Your task to perform on an android device: toggle show notifications on the lock screen Image 0: 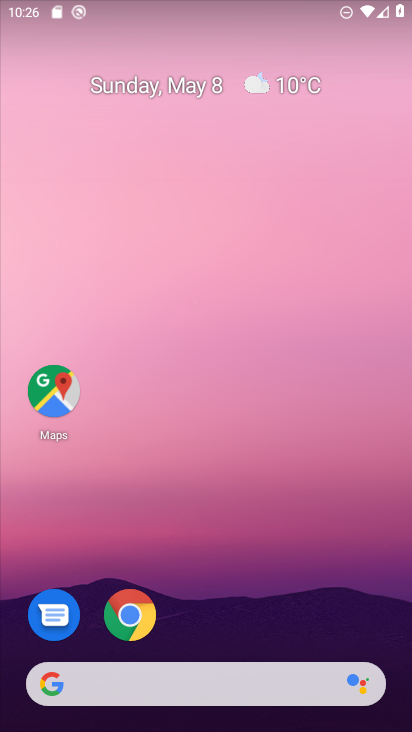
Step 0: drag from (295, 551) to (214, 2)
Your task to perform on an android device: toggle show notifications on the lock screen Image 1: 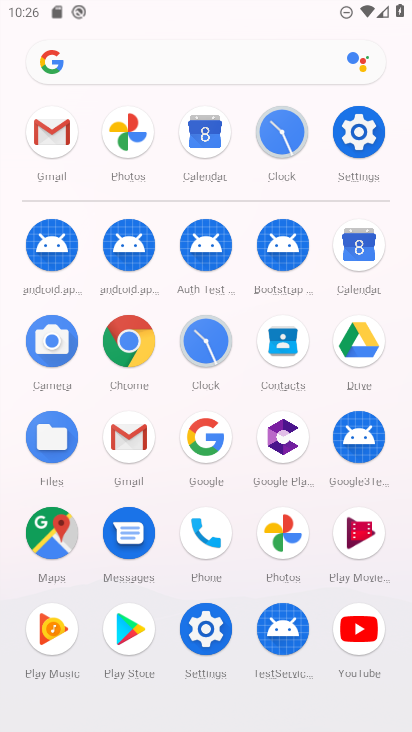
Step 1: click (351, 126)
Your task to perform on an android device: toggle show notifications on the lock screen Image 2: 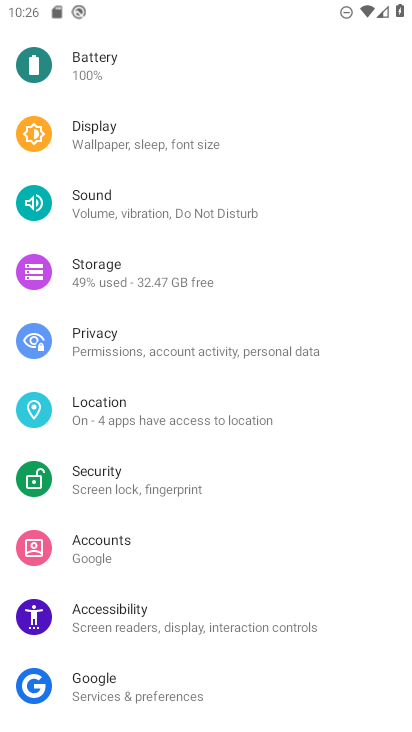
Step 2: drag from (206, 112) to (273, 623)
Your task to perform on an android device: toggle show notifications on the lock screen Image 3: 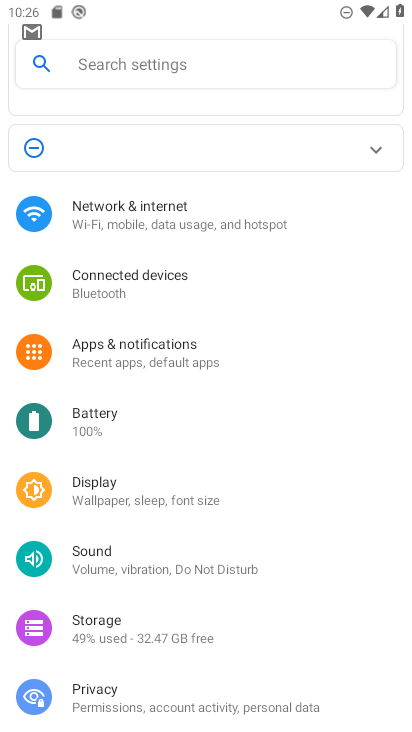
Step 3: click (159, 355)
Your task to perform on an android device: toggle show notifications on the lock screen Image 4: 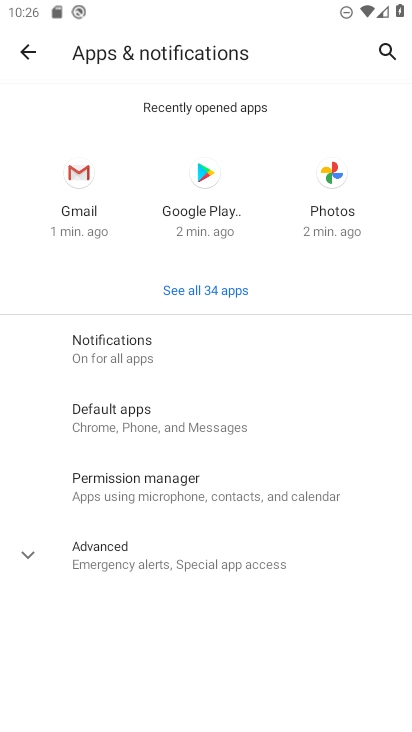
Step 4: click (138, 344)
Your task to perform on an android device: toggle show notifications on the lock screen Image 5: 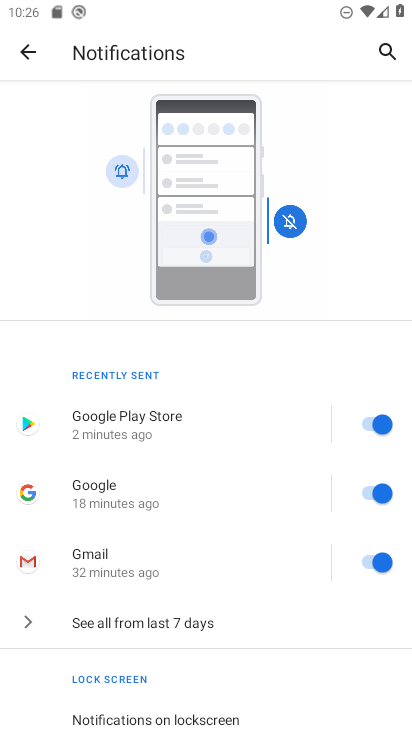
Step 5: drag from (265, 589) to (213, 2)
Your task to perform on an android device: toggle show notifications on the lock screen Image 6: 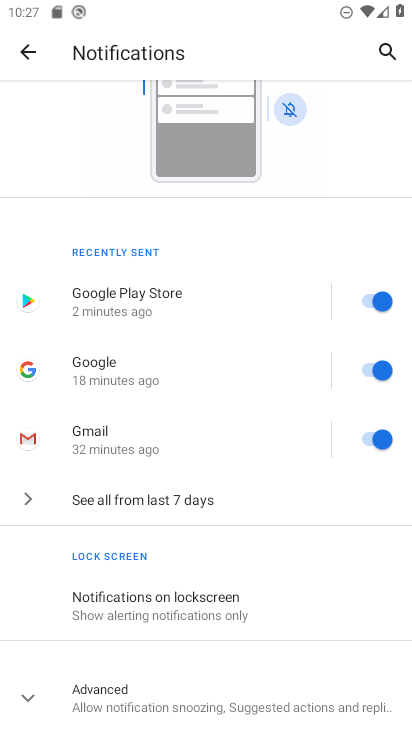
Step 6: click (169, 627)
Your task to perform on an android device: toggle show notifications on the lock screen Image 7: 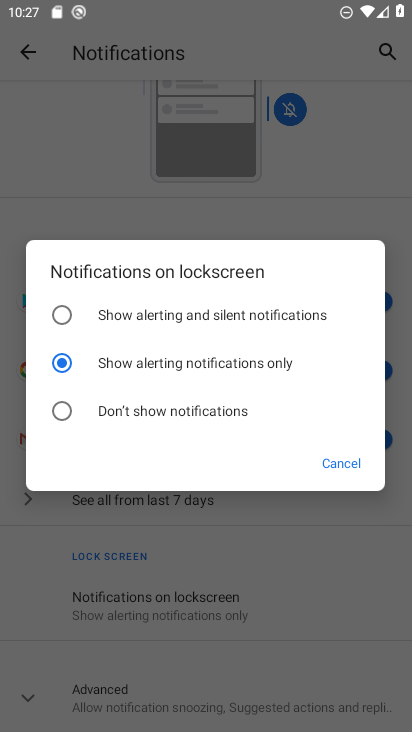
Step 7: click (194, 418)
Your task to perform on an android device: toggle show notifications on the lock screen Image 8: 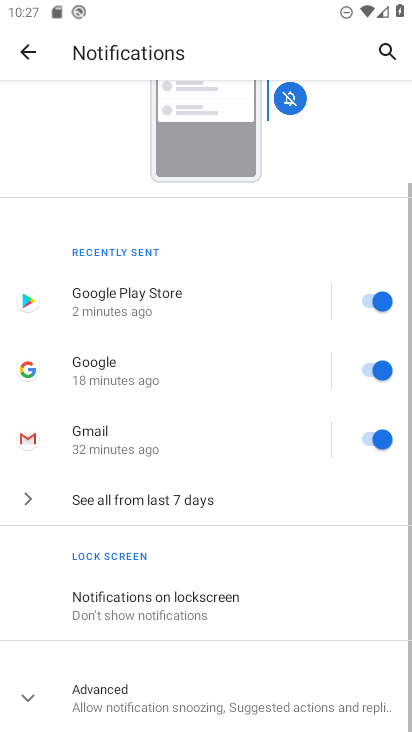
Step 8: task complete